Your task to perform on an android device: toggle notification dots Image 0: 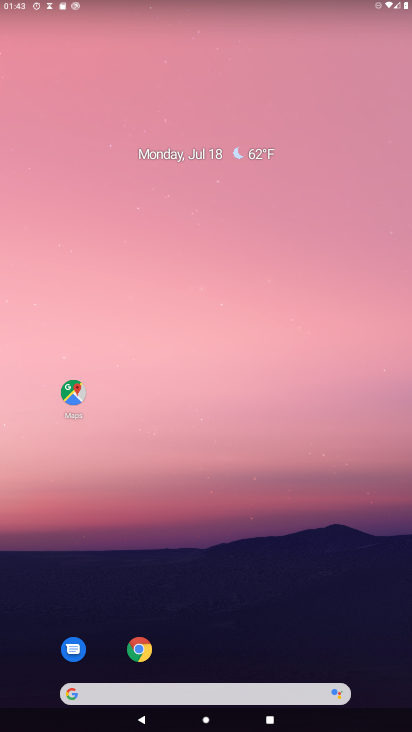
Step 0: drag from (33, 689) to (313, 15)
Your task to perform on an android device: toggle notification dots Image 1: 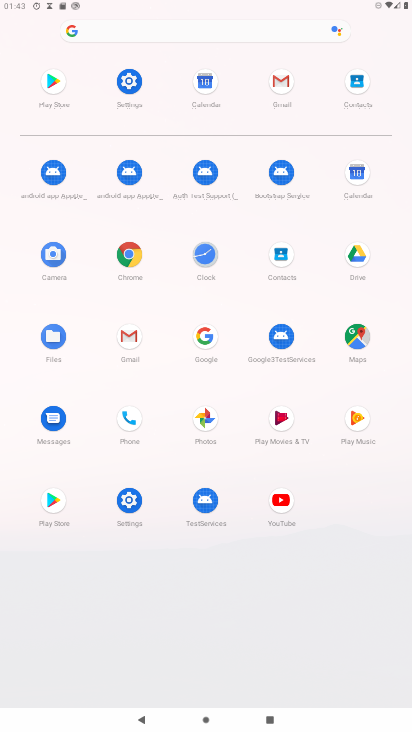
Step 1: click (136, 496)
Your task to perform on an android device: toggle notification dots Image 2: 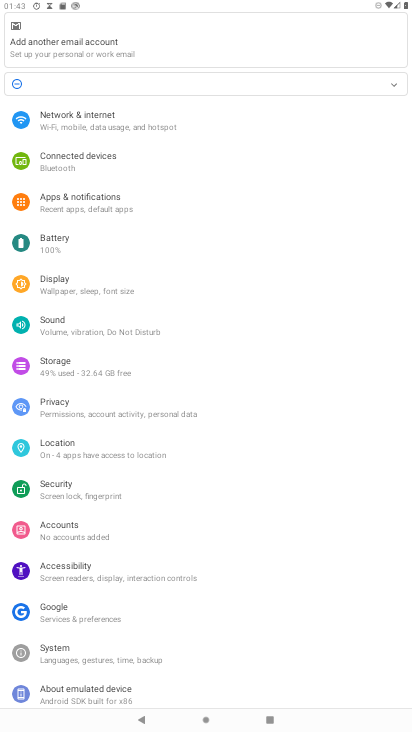
Step 2: click (132, 213)
Your task to perform on an android device: toggle notification dots Image 3: 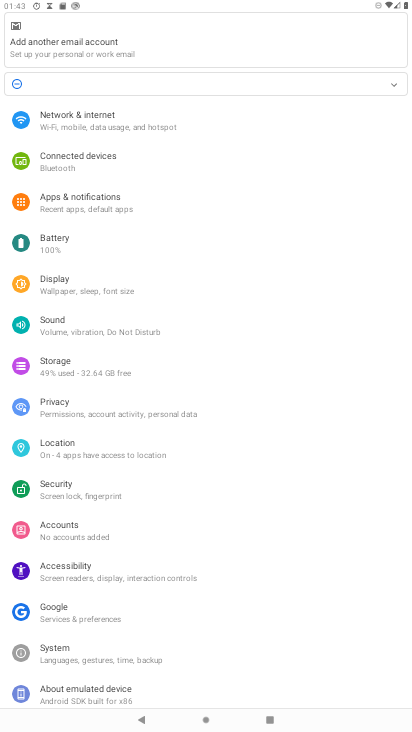
Step 3: click (129, 207)
Your task to perform on an android device: toggle notification dots Image 4: 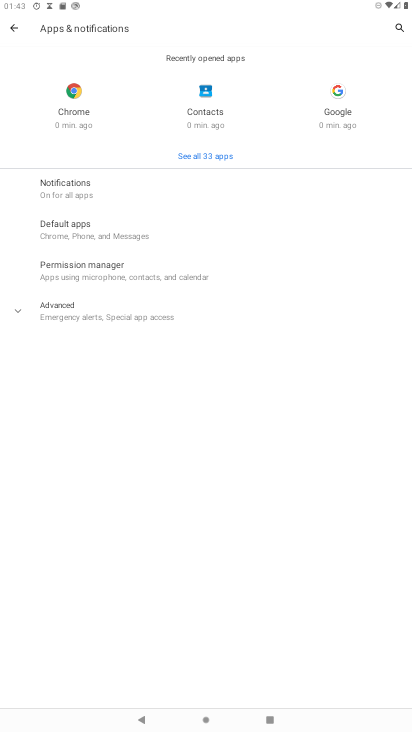
Step 4: click (95, 297)
Your task to perform on an android device: toggle notification dots Image 5: 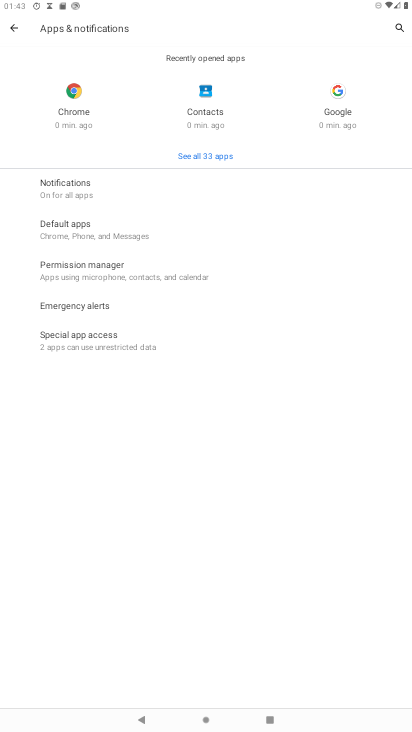
Step 5: click (107, 185)
Your task to perform on an android device: toggle notification dots Image 6: 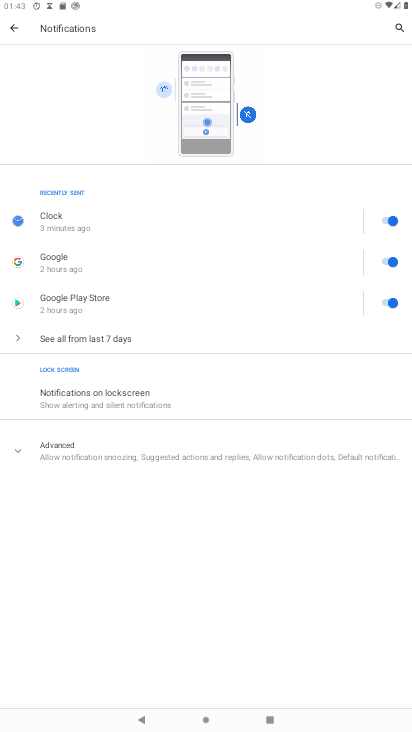
Step 6: click (103, 454)
Your task to perform on an android device: toggle notification dots Image 7: 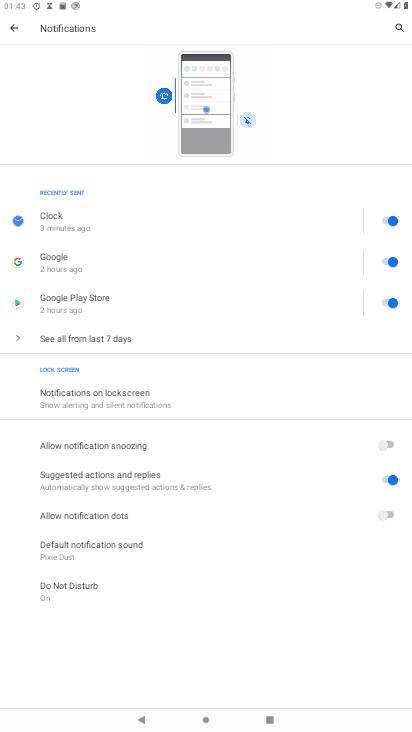
Step 7: click (382, 509)
Your task to perform on an android device: toggle notification dots Image 8: 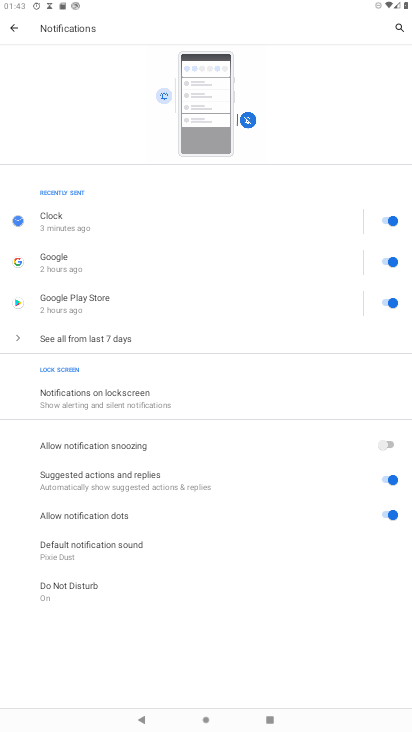
Step 8: task complete